Your task to perform on an android device: see tabs open on other devices in the chrome app Image 0: 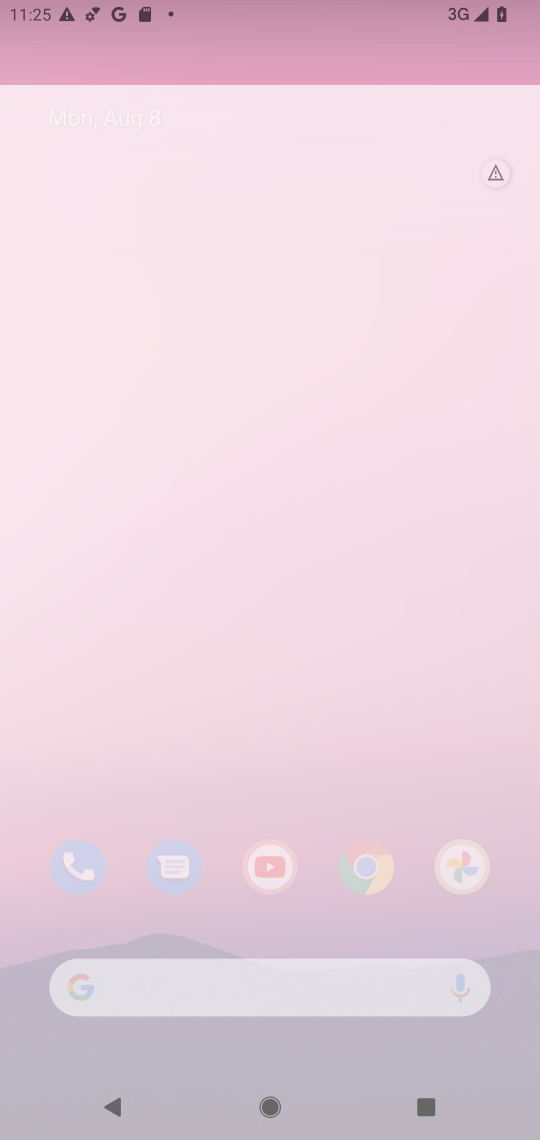
Step 0: press home button
Your task to perform on an android device: see tabs open on other devices in the chrome app Image 1: 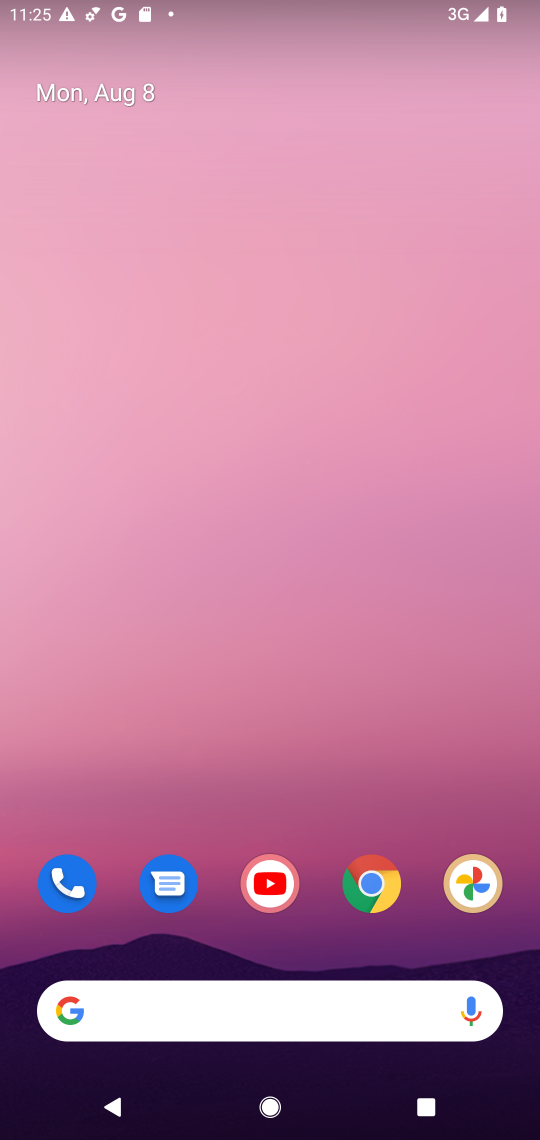
Step 1: drag from (305, 810) to (365, 5)
Your task to perform on an android device: see tabs open on other devices in the chrome app Image 2: 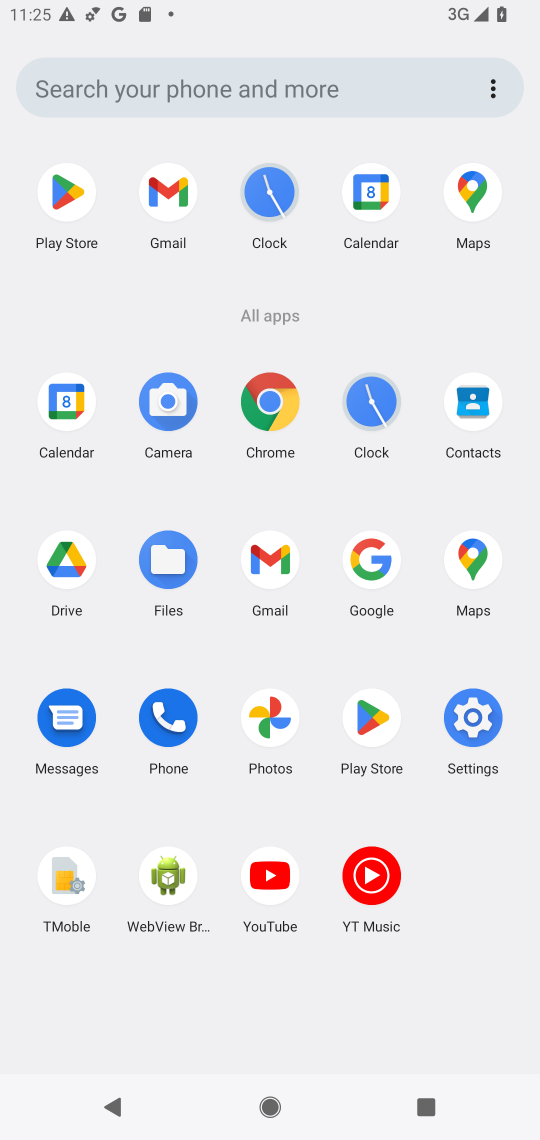
Step 2: click (269, 401)
Your task to perform on an android device: see tabs open on other devices in the chrome app Image 3: 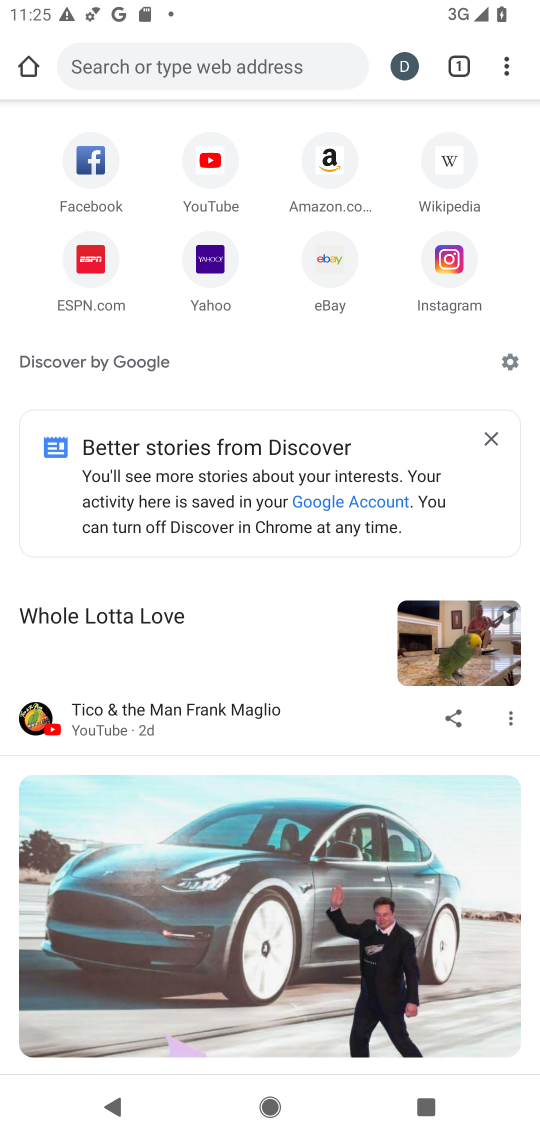
Step 3: click (507, 61)
Your task to perform on an android device: see tabs open on other devices in the chrome app Image 4: 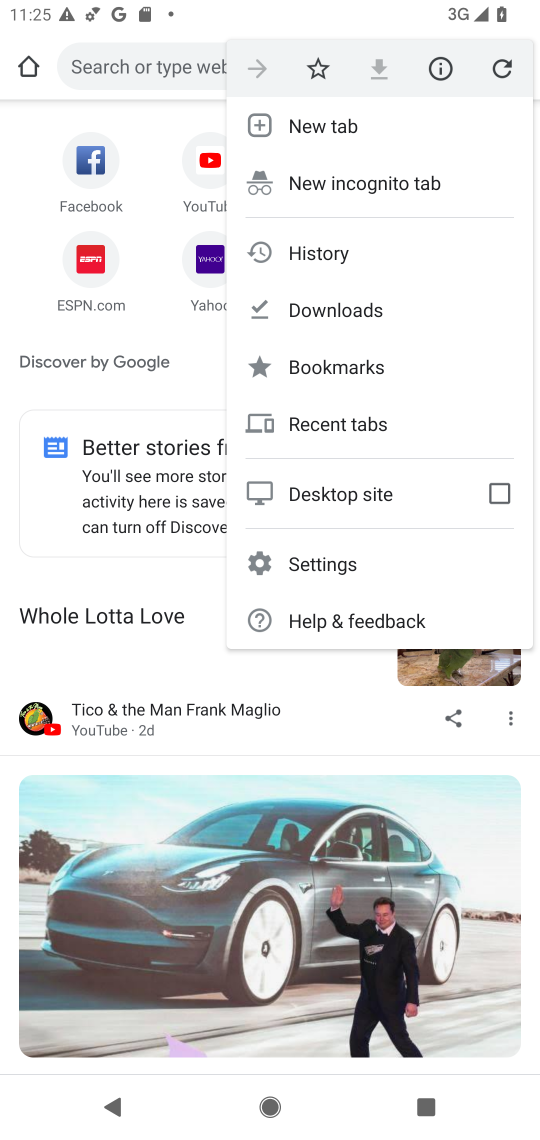
Step 4: click (397, 427)
Your task to perform on an android device: see tabs open on other devices in the chrome app Image 5: 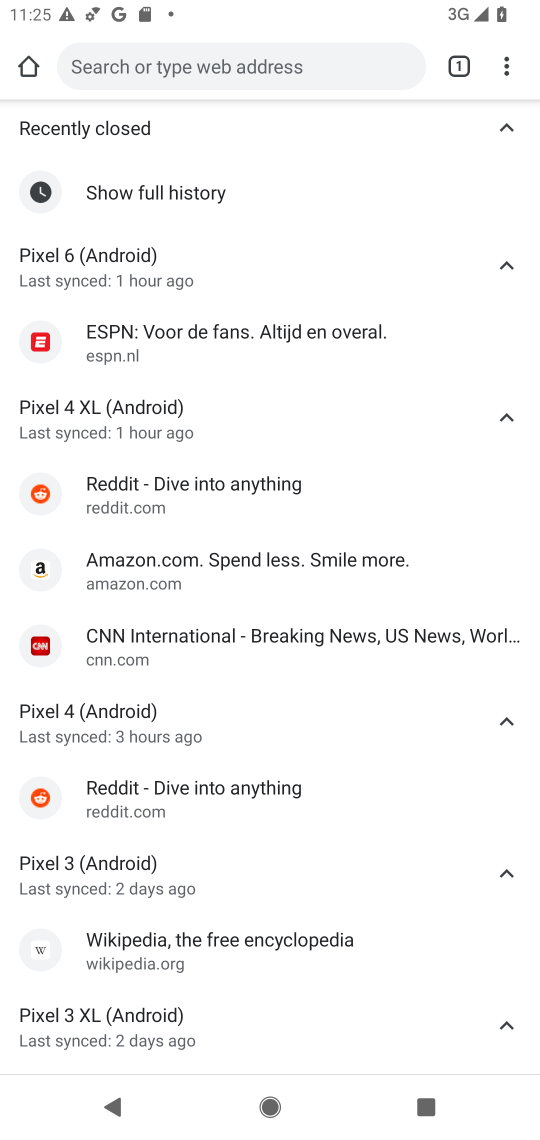
Step 5: task complete